Your task to perform on an android device: move a message to another label in the gmail app Image 0: 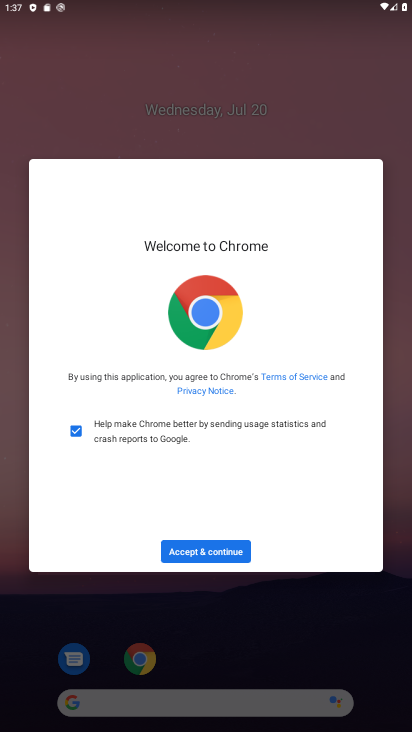
Step 0: press home button
Your task to perform on an android device: move a message to another label in the gmail app Image 1: 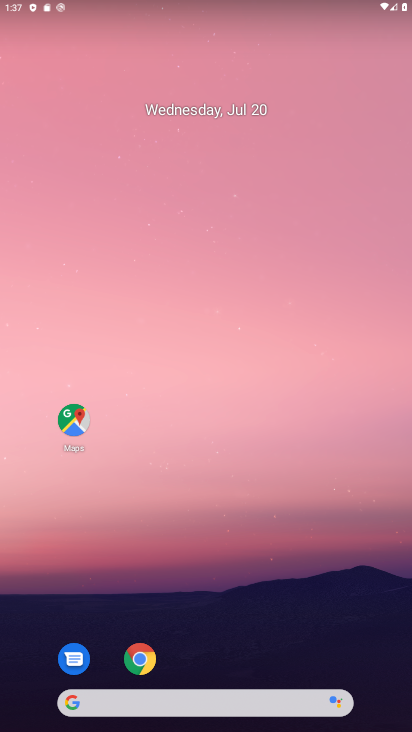
Step 1: drag from (53, 587) to (175, 0)
Your task to perform on an android device: move a message to another label in the gmail app Image 2: 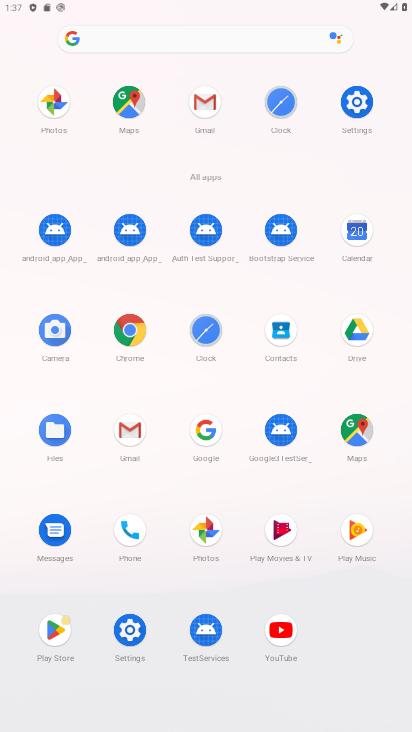
Step 2: click (119, 415)
Your task to perform on an android device: move a message to another label in the gmail app Image 3: 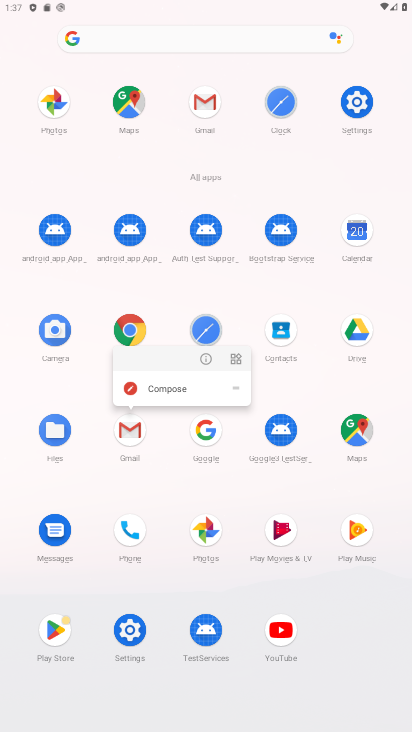
Step 3: click (128, 436)
Your task to perform on an android device: move a message to another label in the gmail app Image 4: 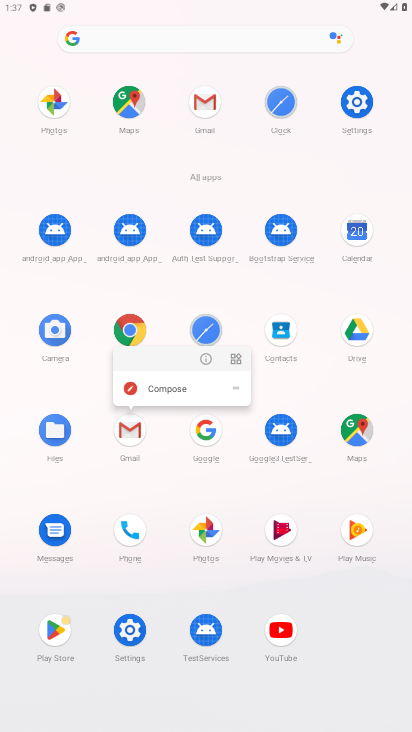
Step 4: click (109, 419)
Your task to perform on an android device: move a message to another label in the gmail app Image 5: 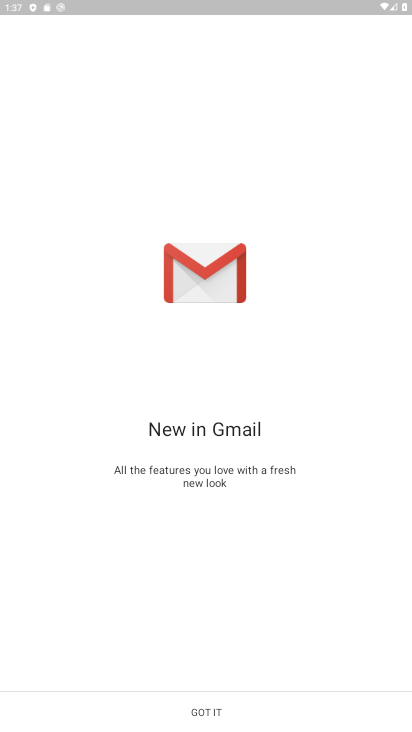
Step 5: click (222, 714)
Your task to perform on an android device: move a message to another label in the gmail app Image 6: 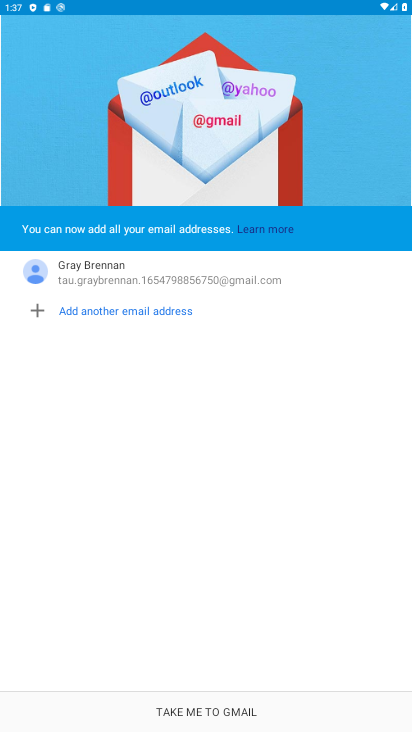
Step 6: click (214, 715)
Your task to perform on an android device: move a message to another label in the gmail app Image 7: 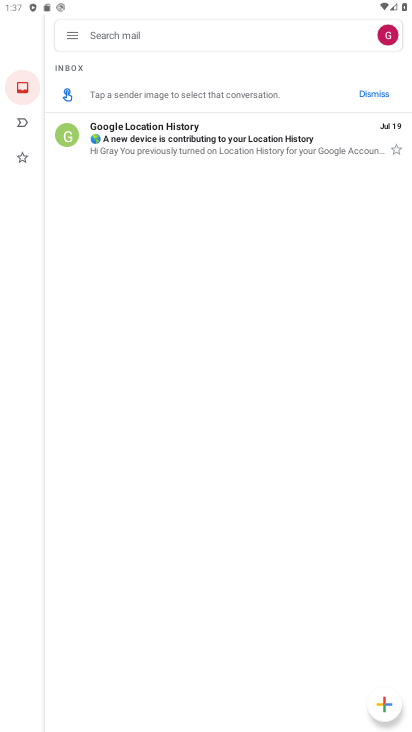
Step 7: click (78, 34)
Your task to perform on an android device: move a message to another label in the gmail app Image 8: 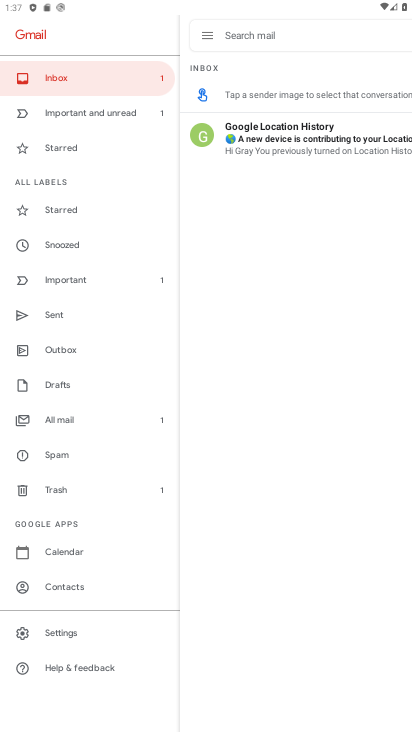
Step 8: click (103, 76)
Your task to perform on an android device: move a message to another label in the gmail app Image 9: 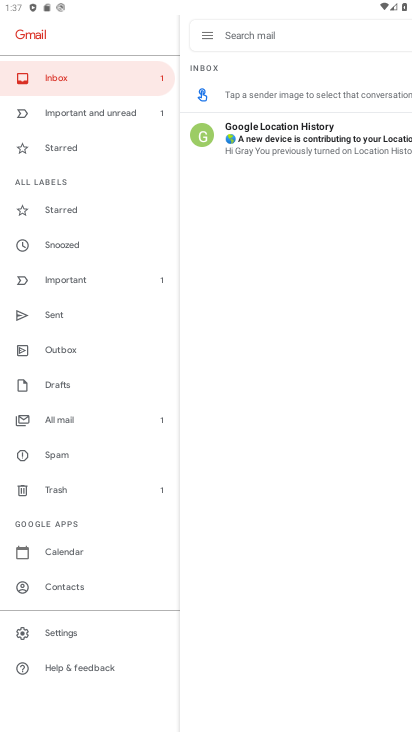
Step 9: task complete